Your task to perform on an android device: Open Google Maps Image 0: 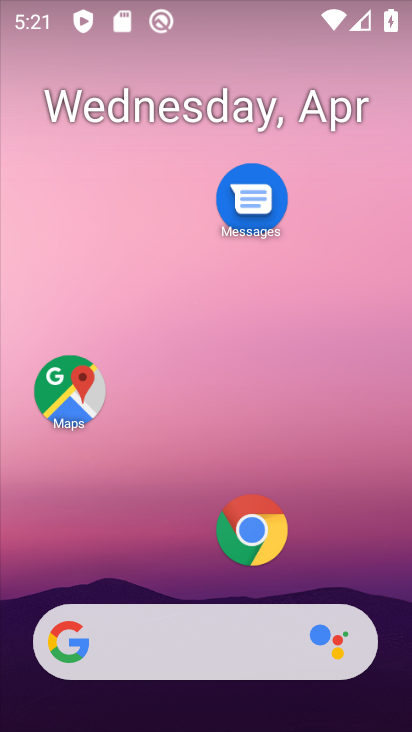
Step 0: click (69, 390)
Your task to perform on an android device: Open Google Maps Image 1: 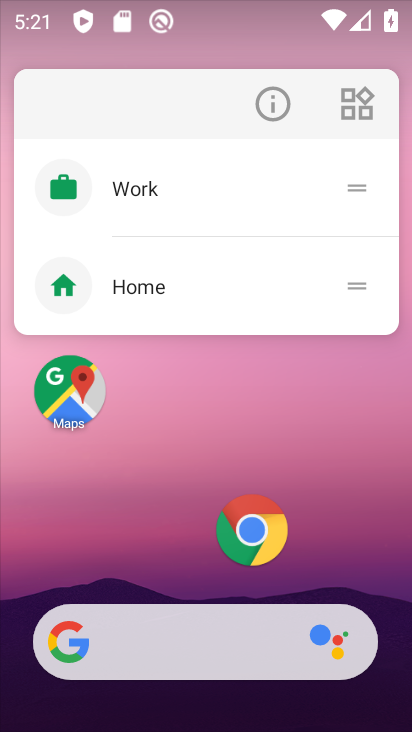
Step 1: click (69, 390)
Your task to perform on an android device: Open Google Maps Image 2: 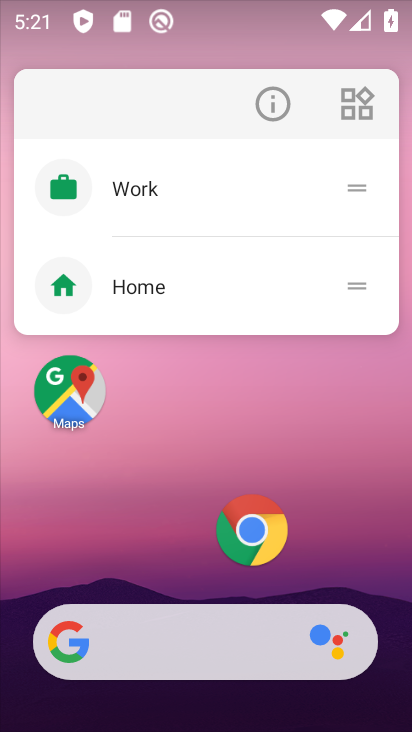
Step 2: click (69, 390)
Your task to perform on an android device: Open Google Maps Image 3: 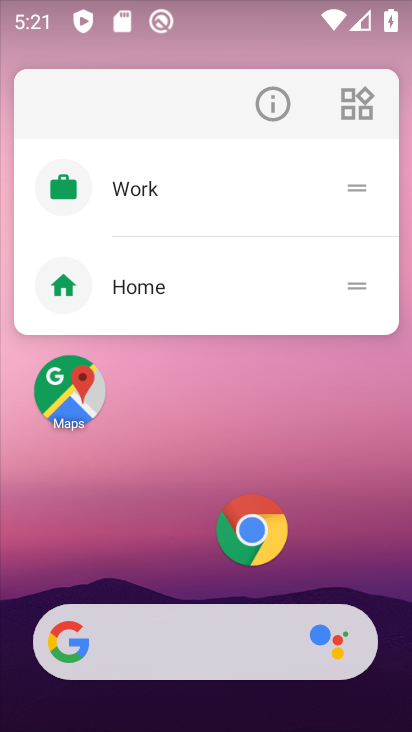
Step 3: click (69, 393)
Your task to perform on an android device: Open Google Maps Image 4: 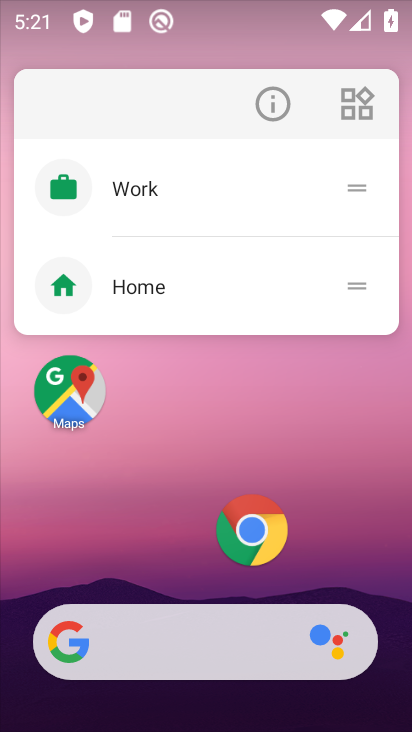
Step 4: click (69, 393)
Your task to perform on an android device: Open Google Maps Image 5: 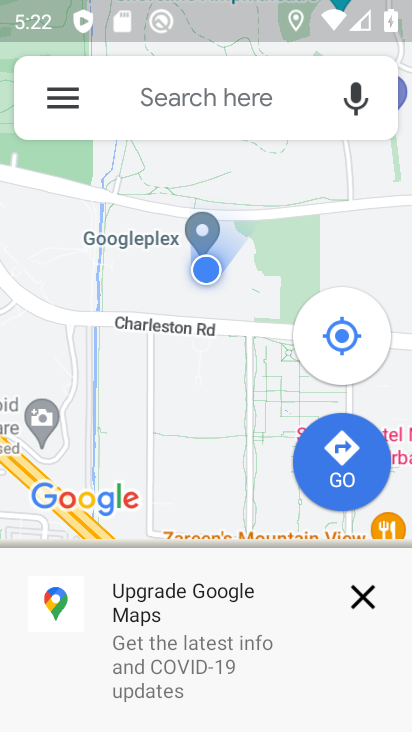
Step 5: task complete